Your task to perform on an android device: change the upload size in google photos Image 0: 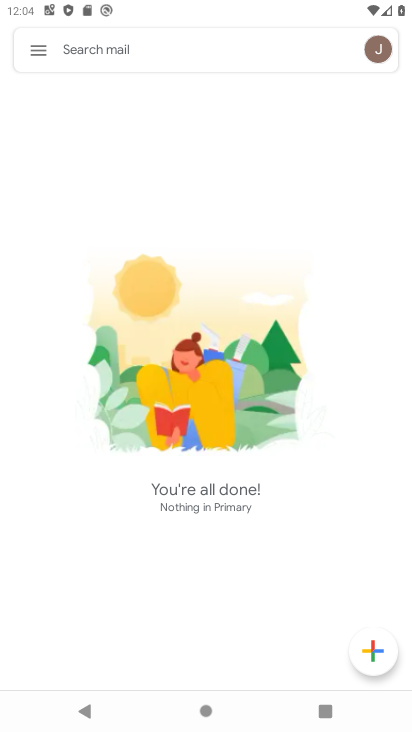
Step 0: press home button
Your task to perform on an android device: change the upload size in google photos Image 1: 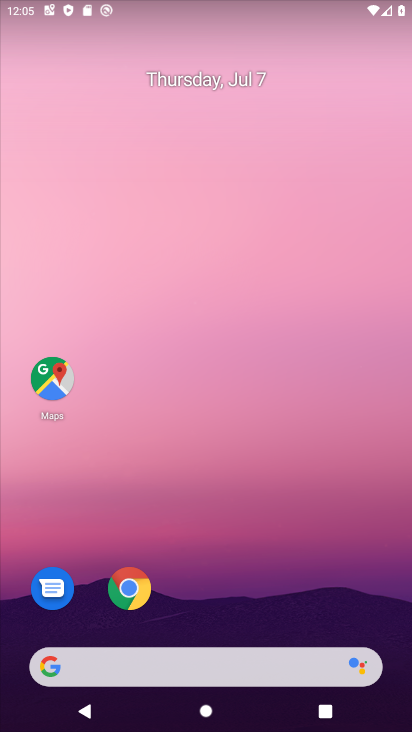
Step 1: drag from (248, 673) to (232, 113)
Your task to perform on an android device: change the upload size in google photos Image 2: 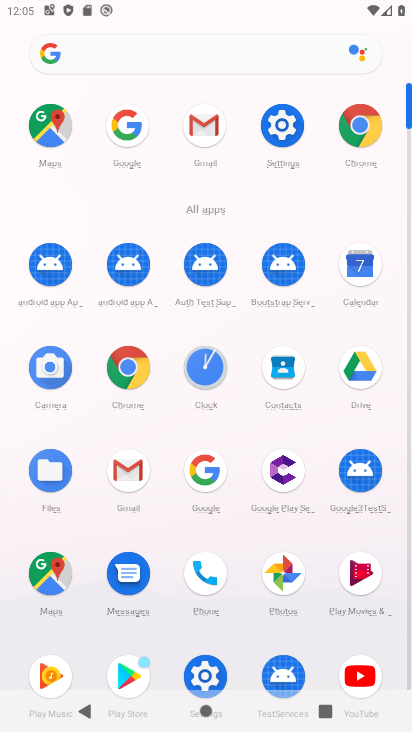
Step 2: click (283, 573)
Your task to perform on an android device: change the upload size in google photos Image 3: 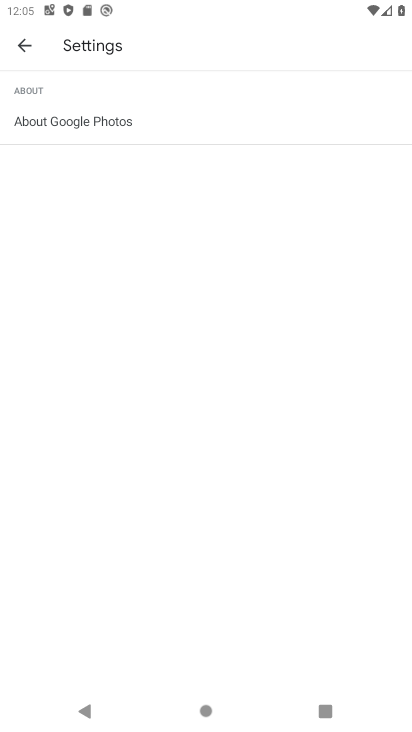
Step 3: click (26, 45)
Your task to perform on an android device: change the upload size in google photos Image 4: 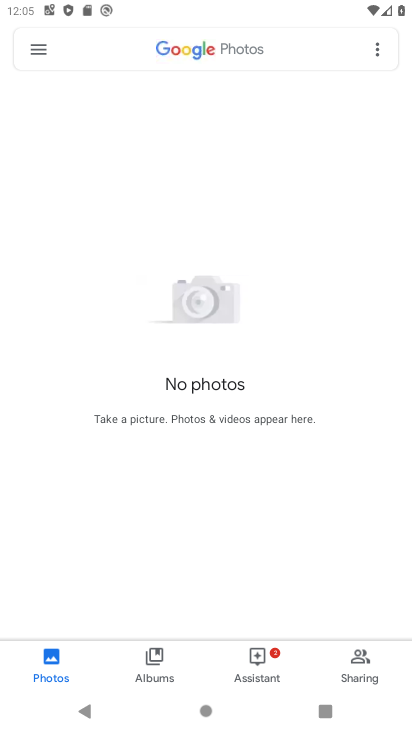
Step 4: click (40, 46)
Your task to perform on an android device: change the upload size in google photos Image 5: 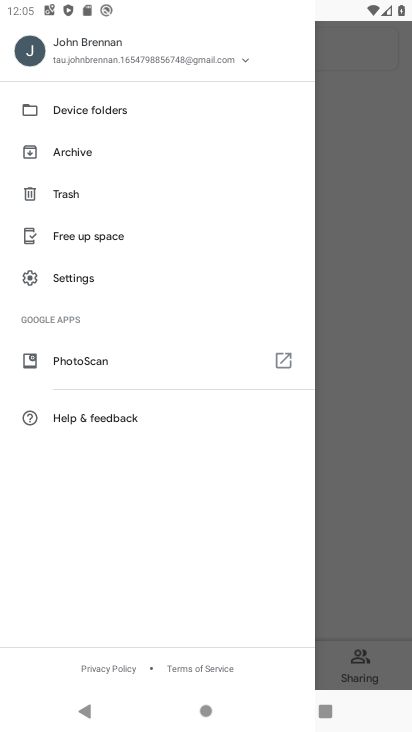
Step 5: click (72, 273)
Your task to perform on an android device: change the upload size in google photos Image 6: 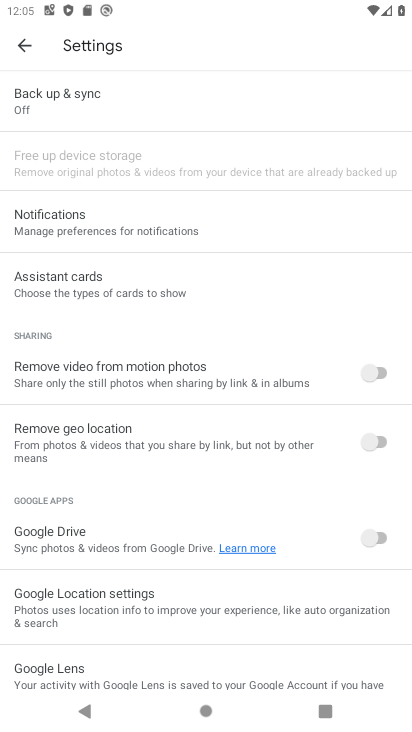
Step 6: click (71, 95)
Your task to perform on an android device: change the upload size in google photos Image 7: 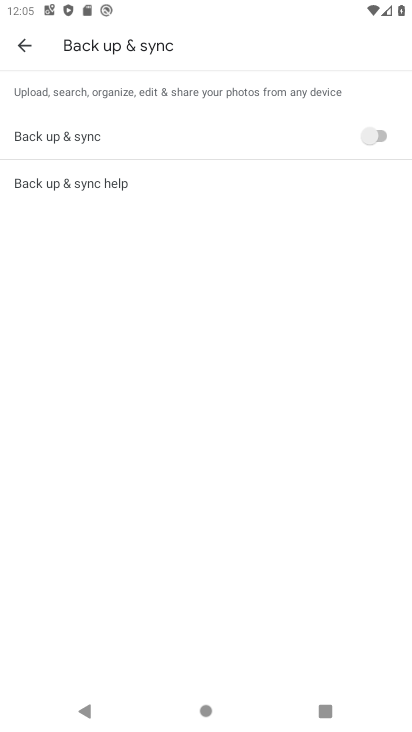
Step 7: click (374, 133)
Your task to perform on an android device: change the upload size in google photos Image 8: 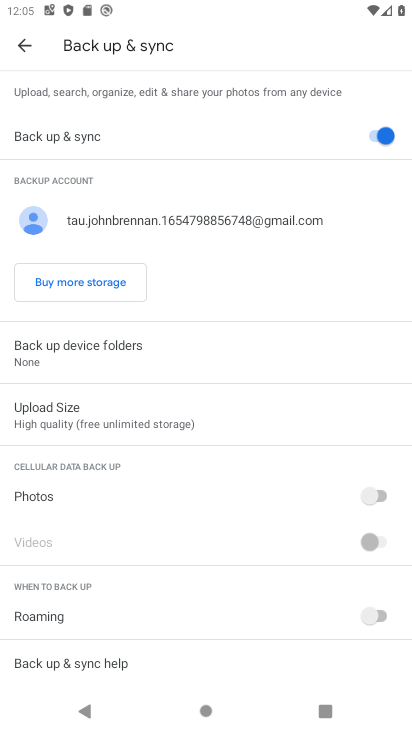
Step 8: click (70, 414)
Your task to perform on an android device: change the upload size in google photos Image 9: 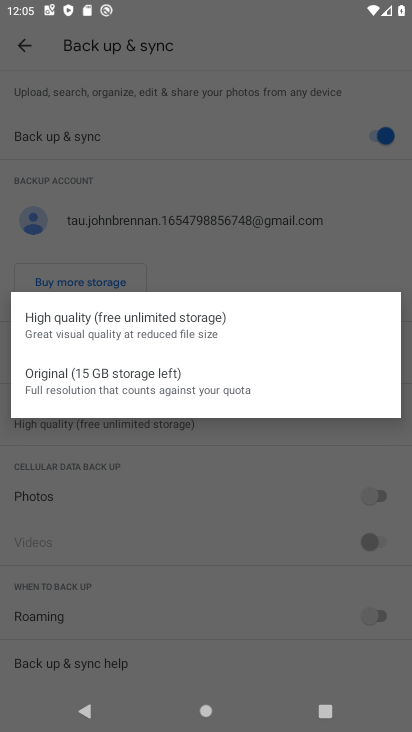
Step 9: click (66, 378)
Your task to perform on an android device: change the upload size in google photos Image 10: 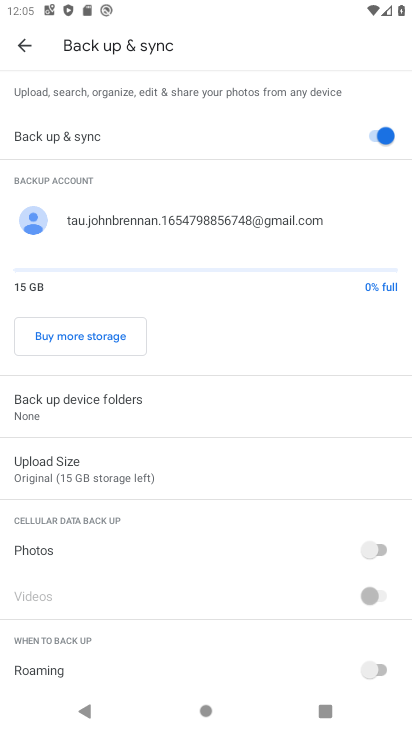
Step 10: task complete